Your task to perform on an android device: add a contact Image 0: 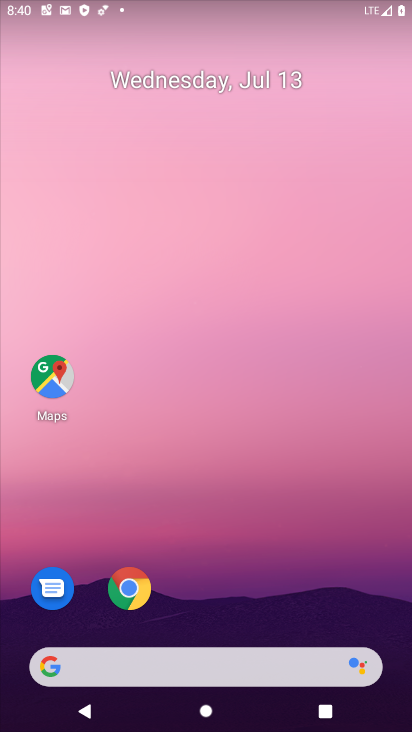
Step 0: drag from (215, 576) to (248, 258)
Your task to perform on an android device: add a contact Image 1: 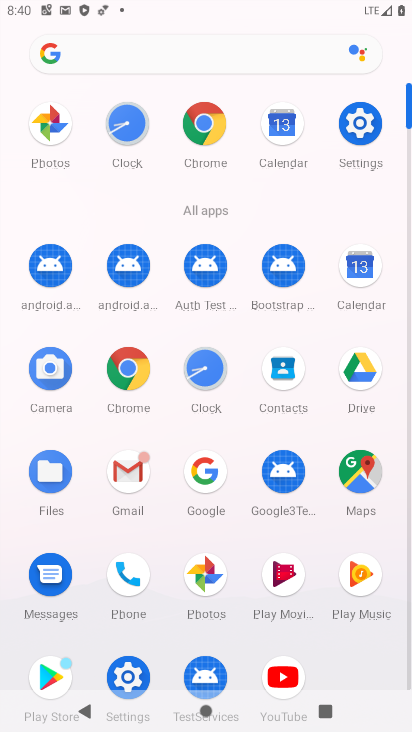
Step 1: click (124, 564)
Your task to perform on an android device: add a contact Image 2: 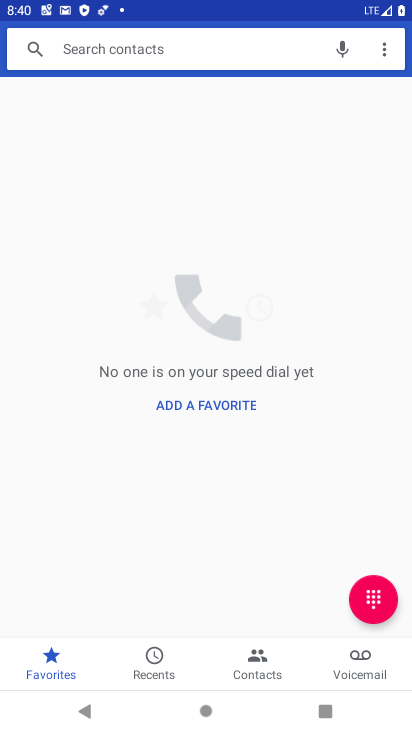
Step 2: click (223, 406)
Your task to perform on an android device: add a contact Image 3: 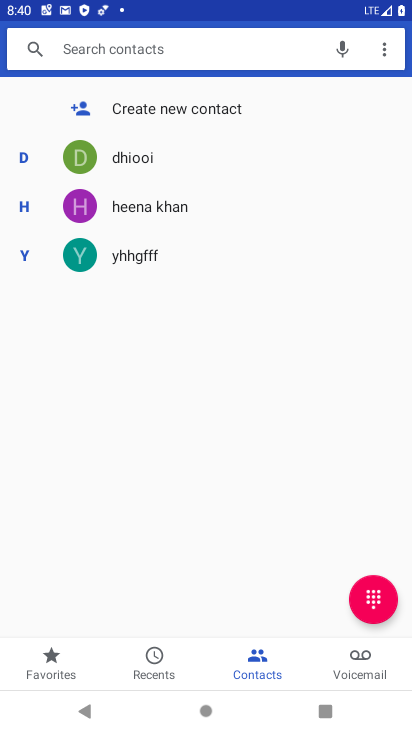
Step 3: click (197, 101)
Your task to perform on an android device: add a contact Image 4: 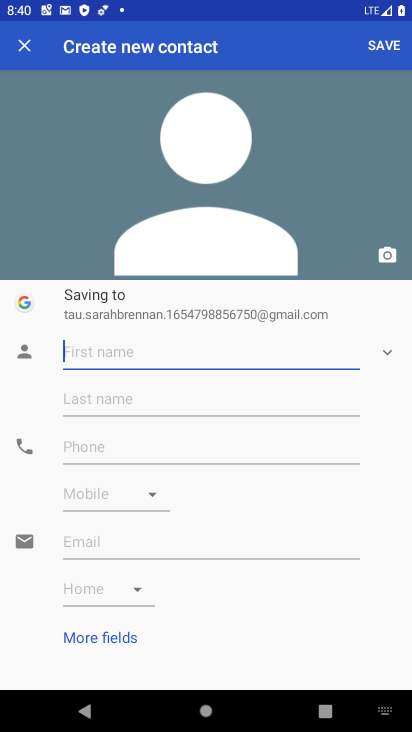
Step 4: click (153, 352)
Your task to perform on an android device: add a contact Image 5: 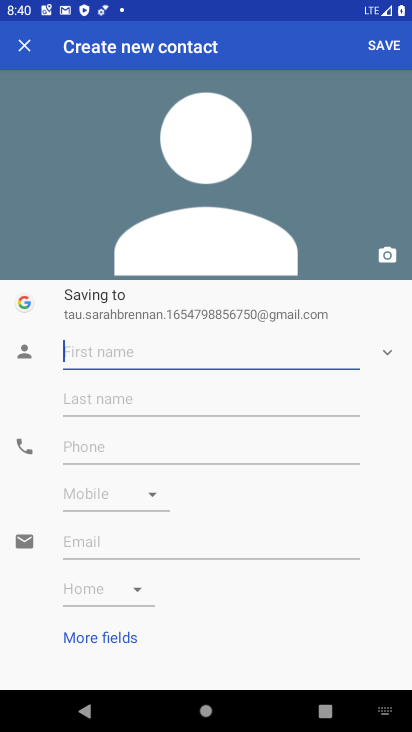
Step 5: type "uyuyyuyyuuyyyu "
Your task to perform on an android device: add a contact Image 6: 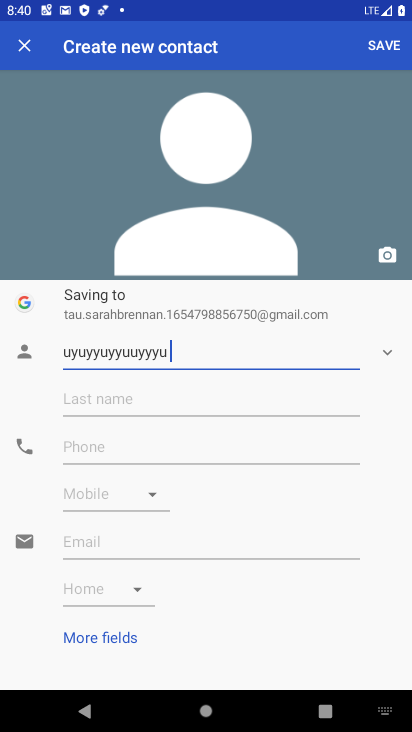
Step 6: click (135, 452)
Your task to perform on an android device: add a contact Image 7: 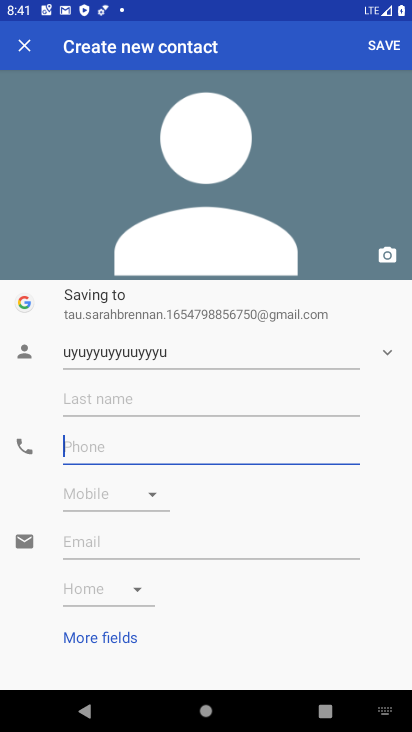
Step 7: type "0987654321 "
Your task to perform on an android device: add a contact Image 8: 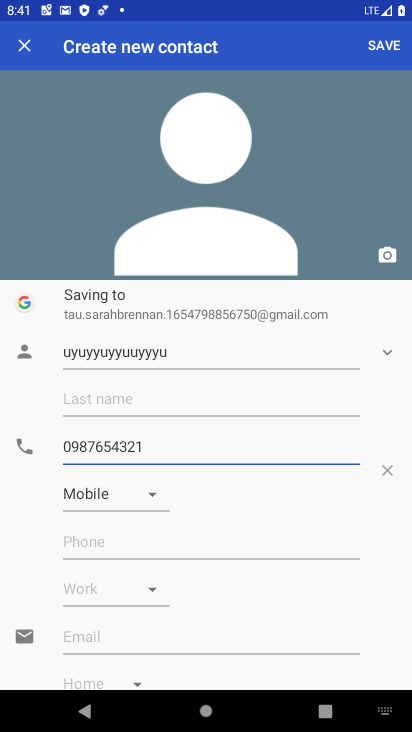
Step 8: click (378, 38)
Your task to perform on an android device: add a contact Image 9: 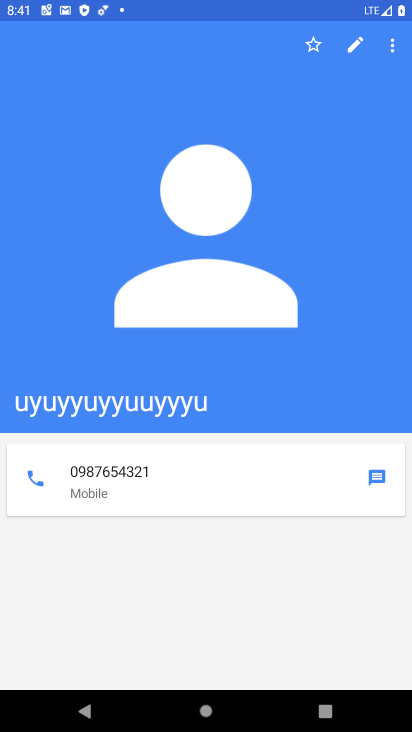
Step 9: task complete